Your task to perform on an android device: Is it going to rain tomorrow? Image 0: 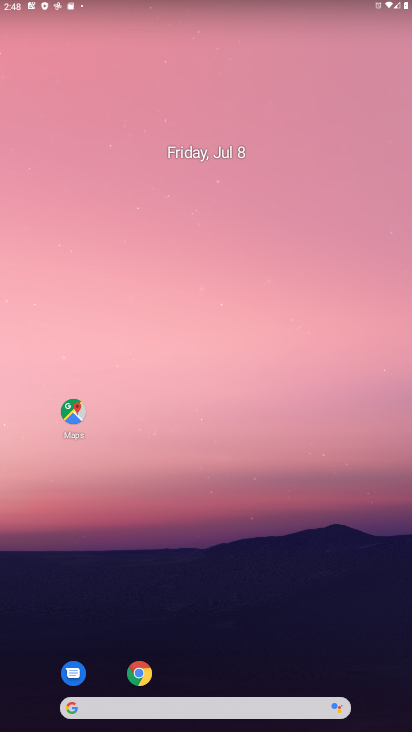
Step 0: drag from (5, 216) to (374, 305)
Your task to perform on an android device: Is it going to rain tomorrow? Image 1: 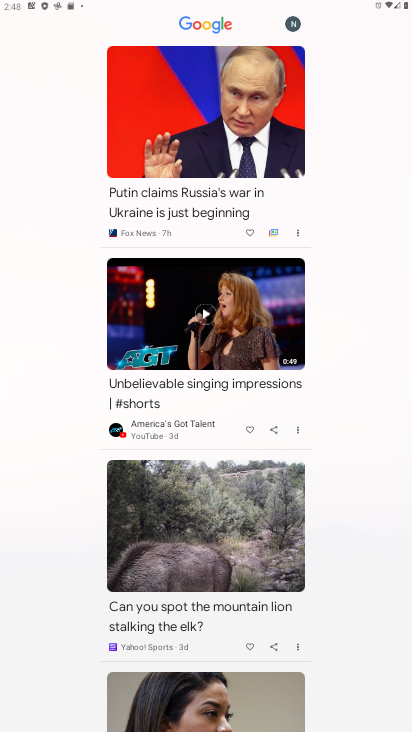
Step 1: task complete